Your task to perform on an android device: change text size in settings app Image 0: 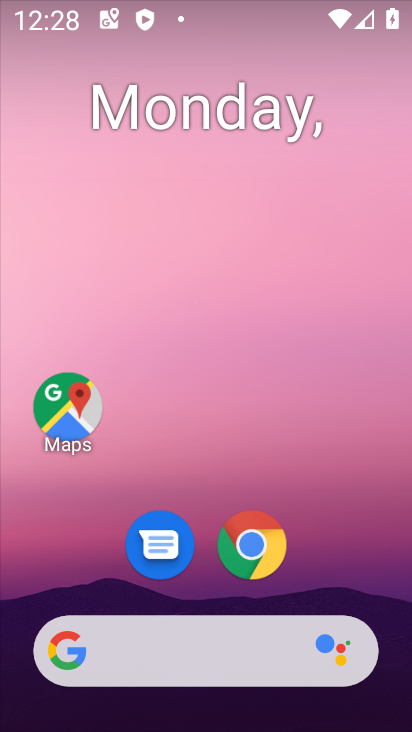
Step 0: drag from (322, 422) to (321, 71)
Your task to perform on an android device: change text size in settings app Image 1: 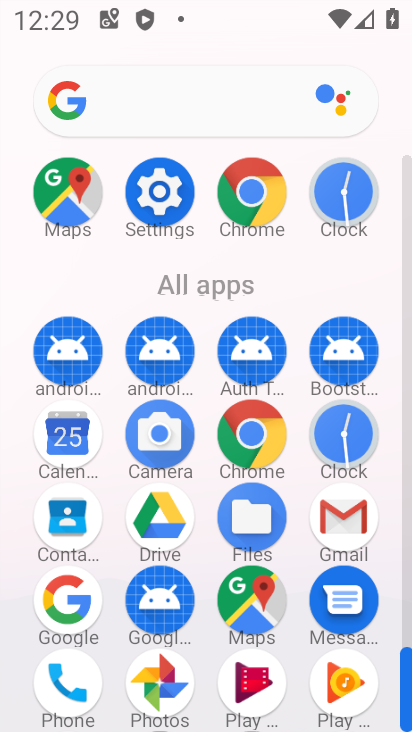
Step 1: click (156, 200)
Your task to perform on an android device: change text size in settings app Image 2: 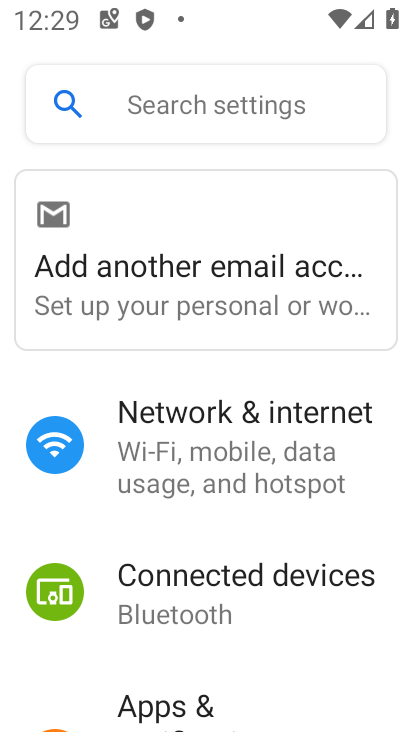
Step 2: drag from (301, 679) to (307, 268)
Your task to perform on an android device: change text size in settings app Image 3: 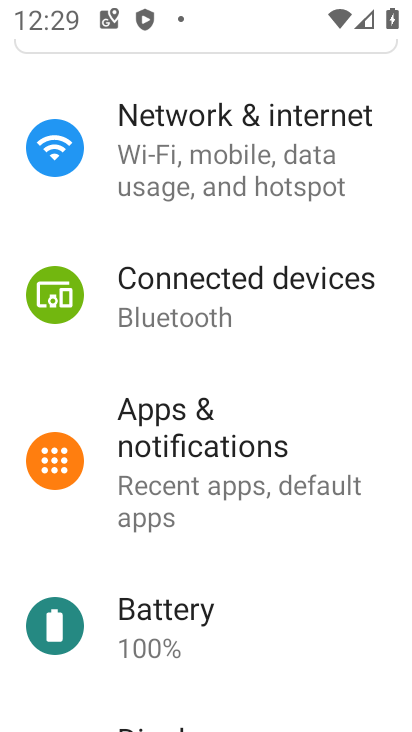
Step 3: drag from (279, 633) to (285, 222)
Your task to perform on an android device: change text size in settings app Image 4: 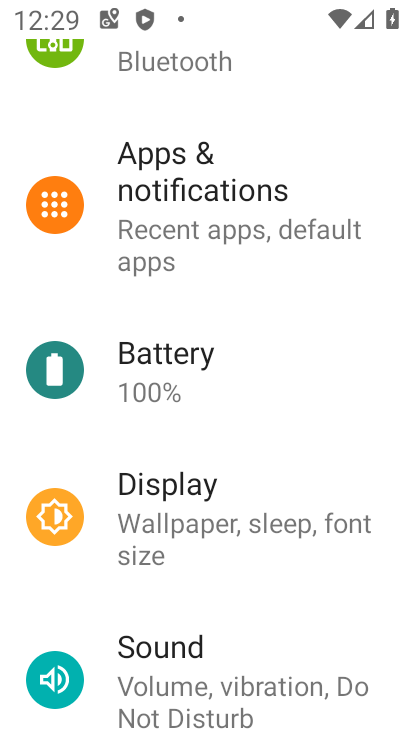
Step 4: drag from (287, 654) to (313, 139)
Your task to perform on an android device: change text size in settings app Image 5: 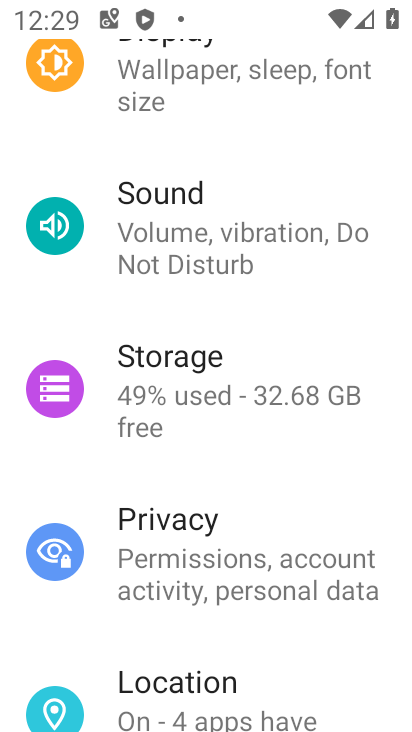
Step 5: drag from (261, 658) to (256, 93)
Your task to perform on an android device: change text size in settings app Image 6: 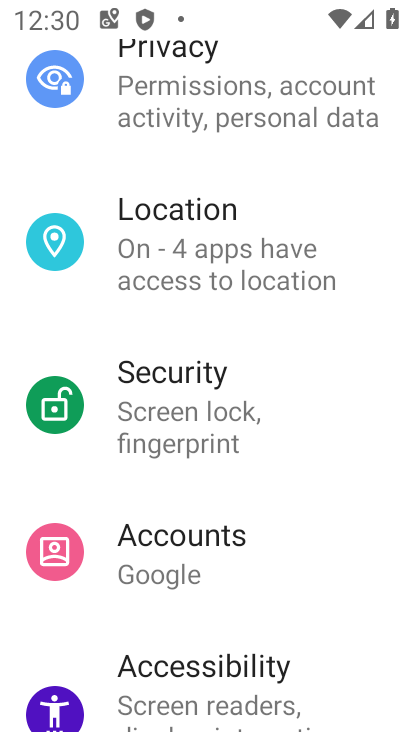
Step 6: drag from (302, 605) to (329, 186)
Your task to perform on an android device: change text size in settings app Image 7: 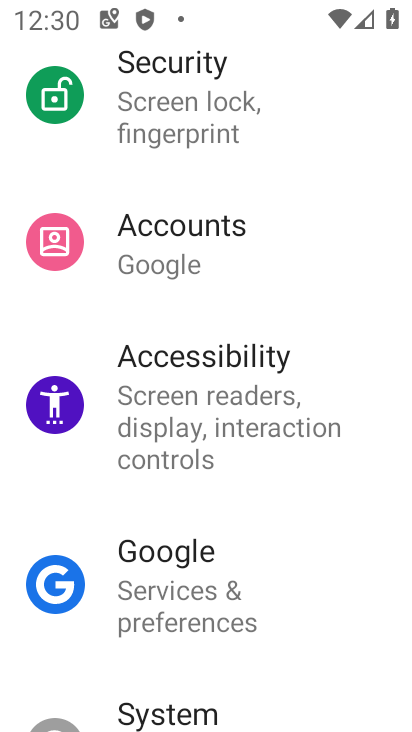
Step 7: drag from (335, 652) to (344, 254)
Your task to perform on an android device: change text size in settings app Image 8: 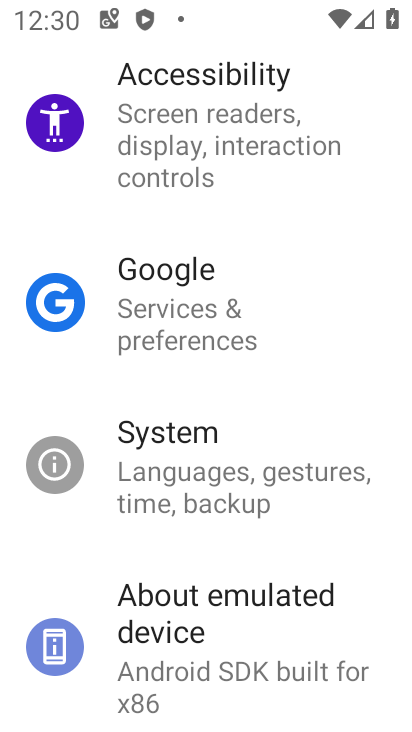
Step 8: drag from (324, 194) to (275, 605)
Your task to perform on an android device: change text size in settings app Image 9: 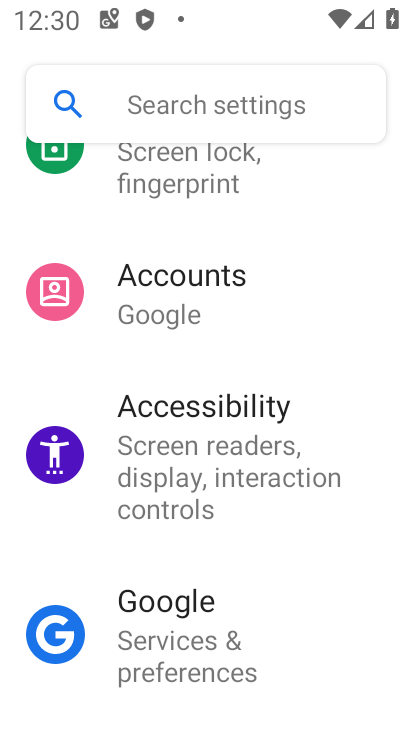
Step 9: drag from (273, 242) to (270, 614)
Your task to perform on an android device: change text size in settings app Image 10: 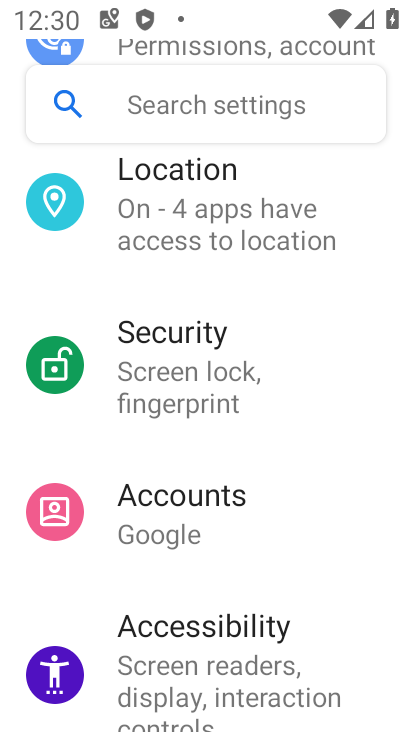
Step 10: drag from (276, 233) to (274, 689)
Your task to perform on an android device: change text size in settings app Image 11: 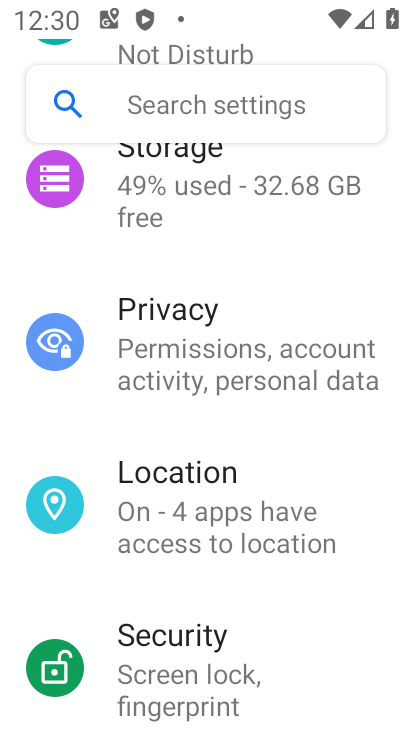
Step 11: drag from (272, 303) to (265, 650)
Your task to perform on an android device: change text size in settings app Image 12: 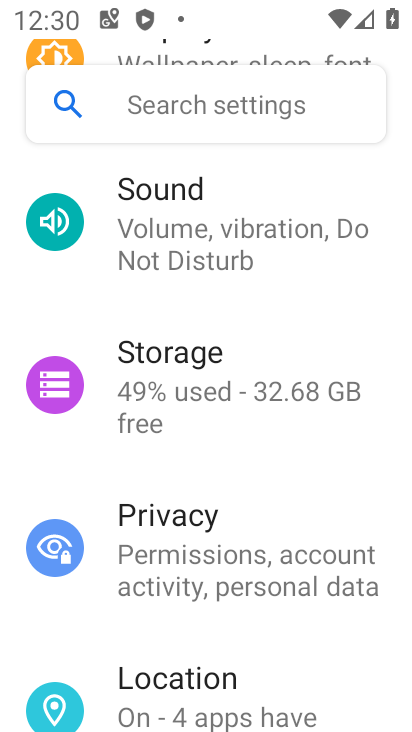
Step 12: drag from (302, 268) to (297, 578)
Your task to perform on an android device: change text size in settings app Image 13: 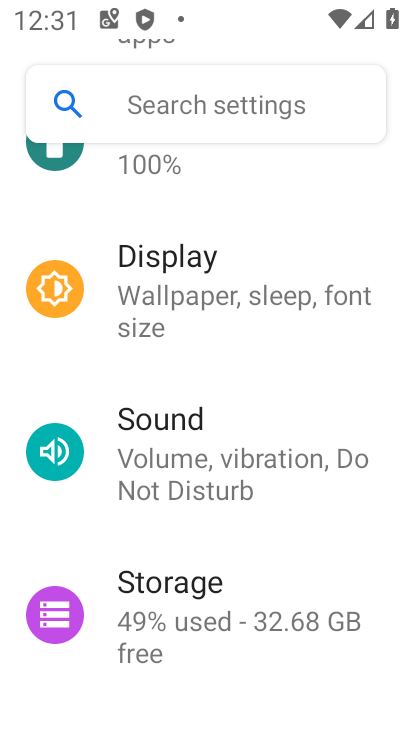
Step 13: click (284, 291)
Your task to perform on an android device: change text size in settings app Image 14: 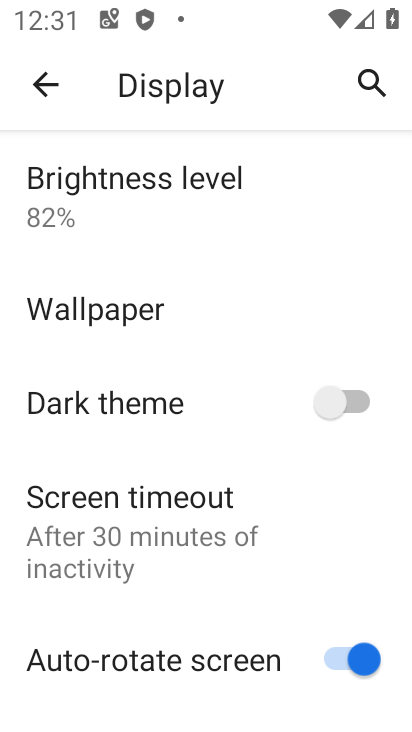
Step 14: drag from (222, 564) to (238, 197)
Your task to perform on an android device: change text size in settings app Image 15: 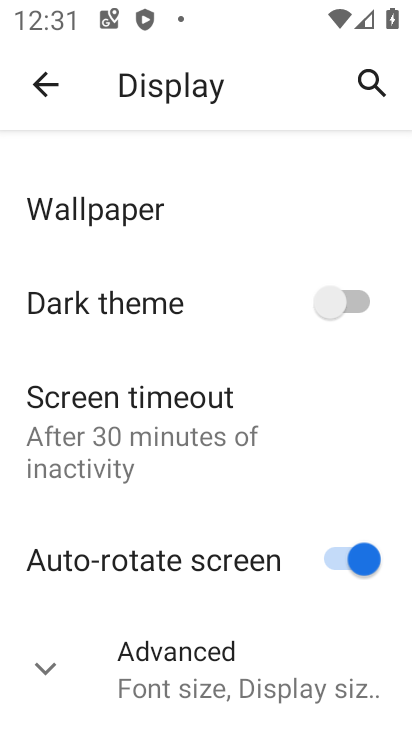
Step 15: click (206, 670)
Your task to perform on an android device: change text size in settings app Image 16: 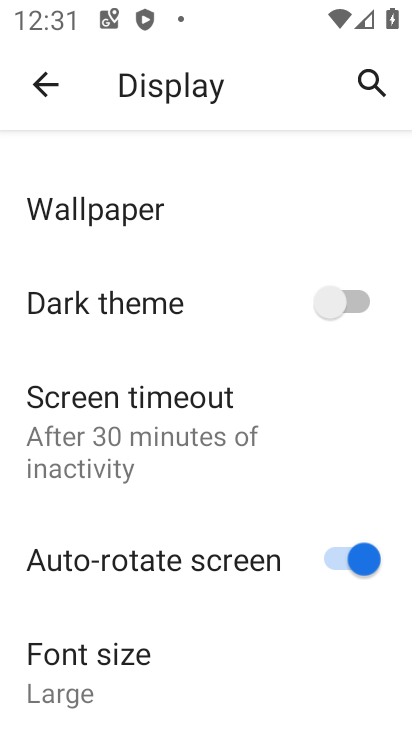
Step 16: click (108, 681)
Your task to perform on an android device: change text size in settings app Image 17: 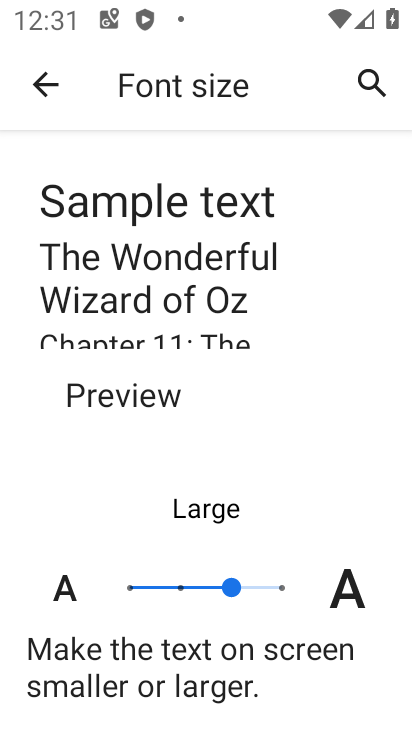
Step 17: click (178, 586)
Your task to perform on an android device: change text size in settings app Image 18: 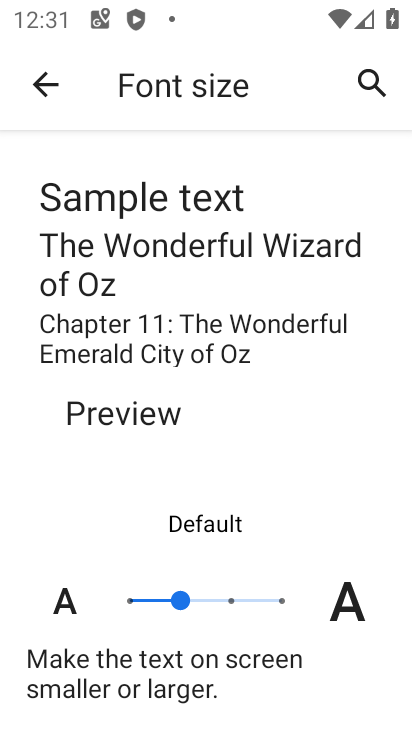
Step 18: click (133, 594)
Your task to perform on an android device: change text size in settings app Image 19: 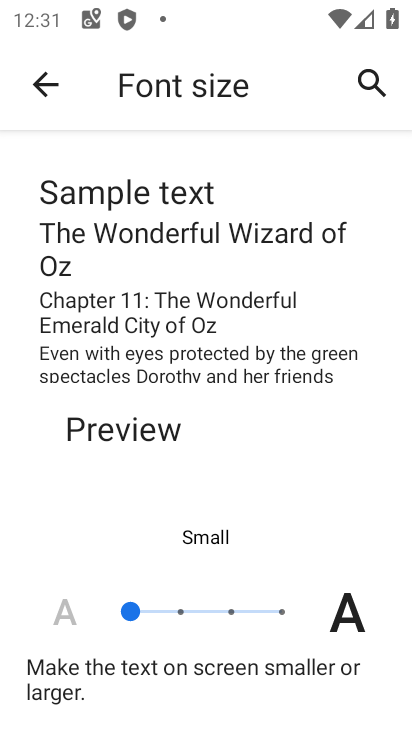
Step 19: task complete